Your task to perform on an android device: Go to privacy settings Image 0: 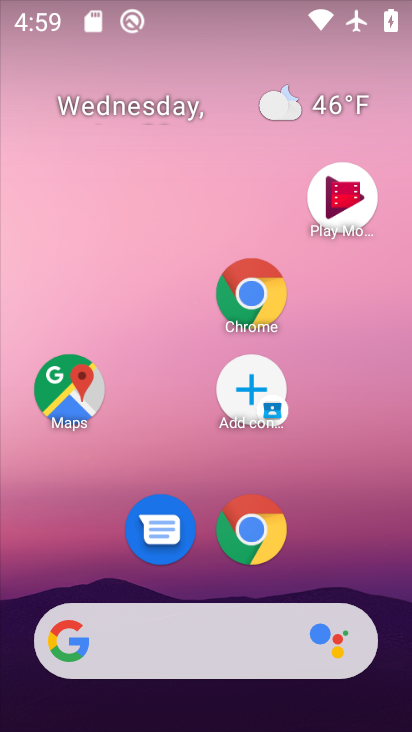
Step 0: drag from (312, 557) to (298, 122)
Your task to perform on an android device: Go to privacy settings Image 1: 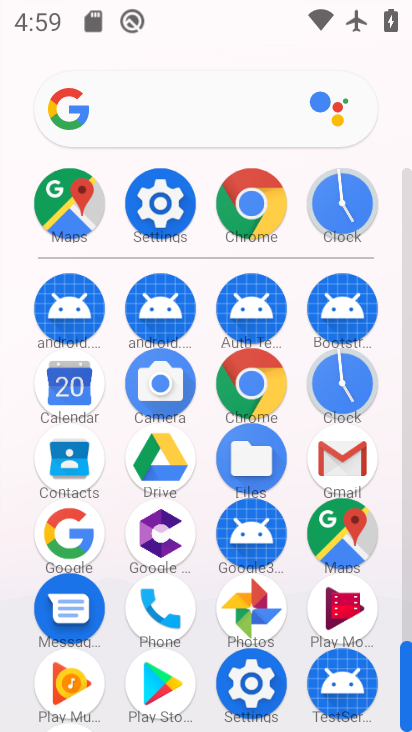
Step 1: click (166, 231)
Your task to perform on an android device: Go to privacy settings Image 2: 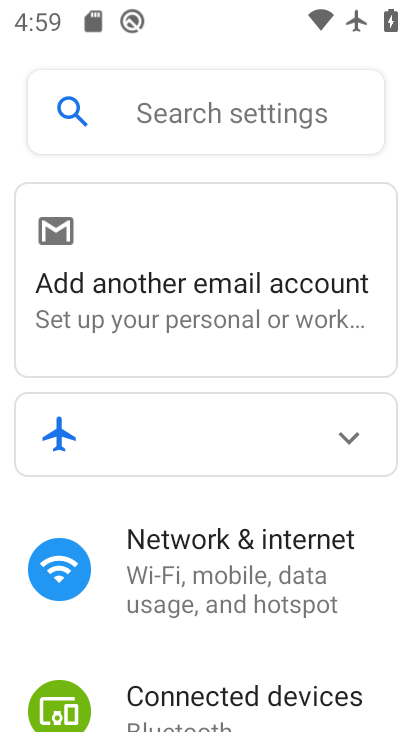
Step 2: drag from (263, 629) to (293, 239)
Your task to perform on an android device: Go to privacy settings Image 3: 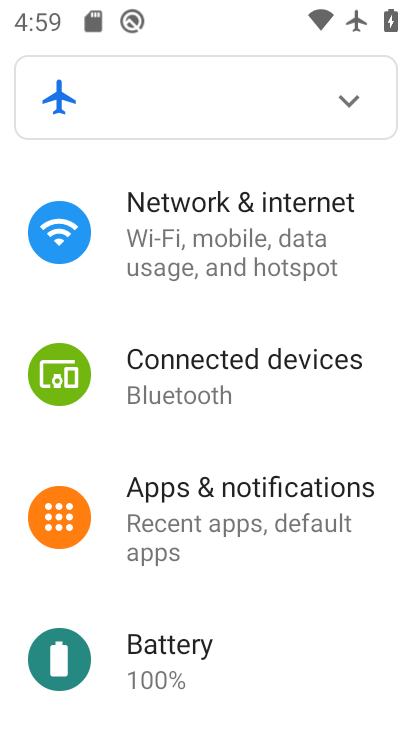
Step 3: drag from (212, 660) to (250, 304)
Your task to perform on an android device: Go to privacy settings Image 4: 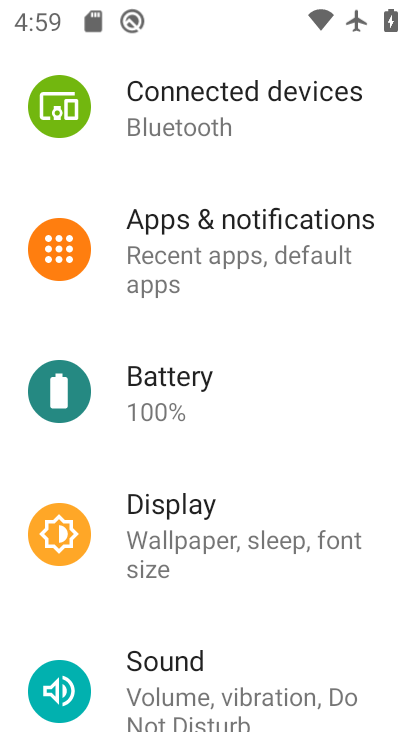
Step 4: drag from (201, 626) to (181, 275)
Your task to perform on an android device: Go to privacy settings Image 5: 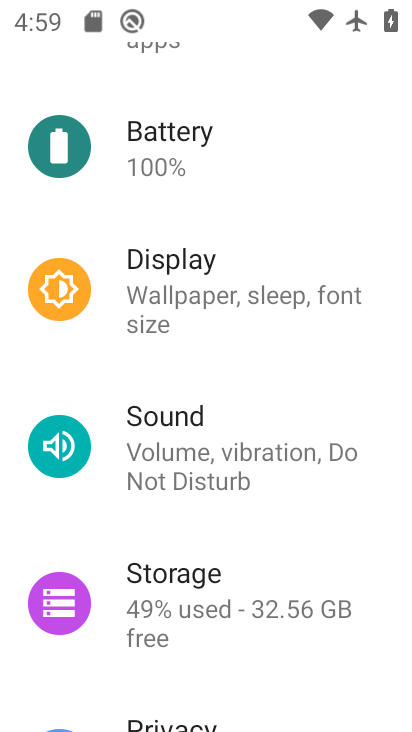
Step 5: drag from (284, 585) to (301, 221)
Your task to perform on an android device: Go to privacy settings Image 6: 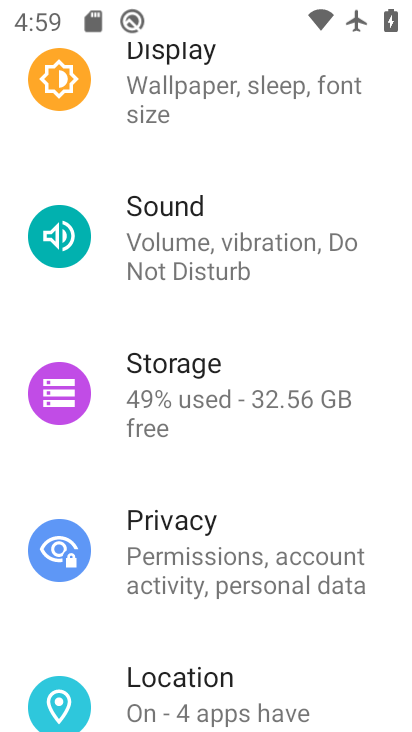
Step 6: click (265, 567)
Your task to perform on an android device: Go to privacy settings Image 7: 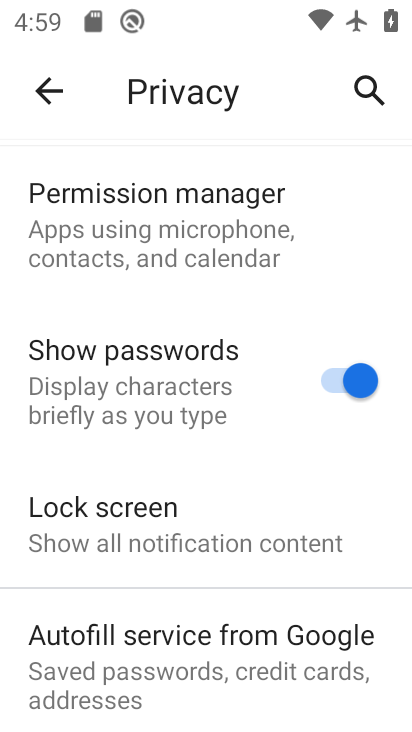
Step 7: task complete